Your task to perform on an android device: create a new album in the google photos Image 0: 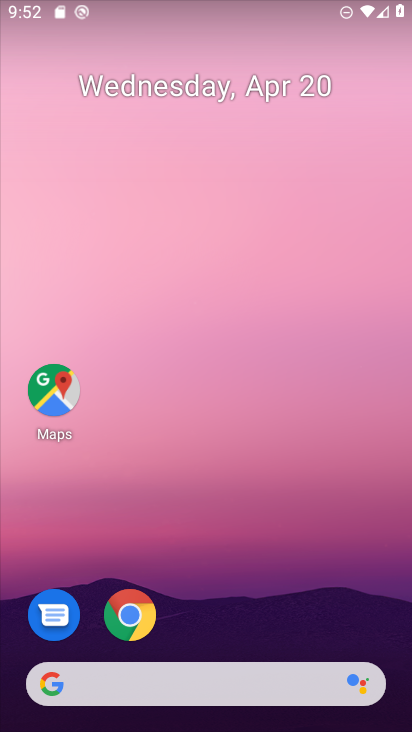
Step 0: drag from (251, 638) to (268, 82)
Your task to perform on an android device: create a new album in the google photos Image 1: 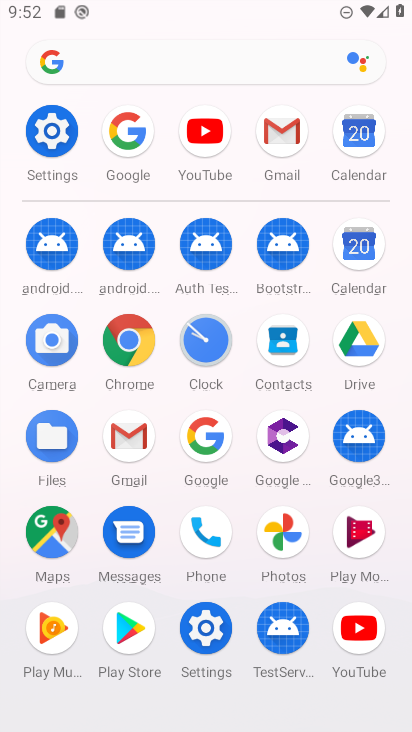
Step 1: drag from (171, 605) to (196, 310)
Your task to perform on an android device: create a new album in the google photos Image 2: 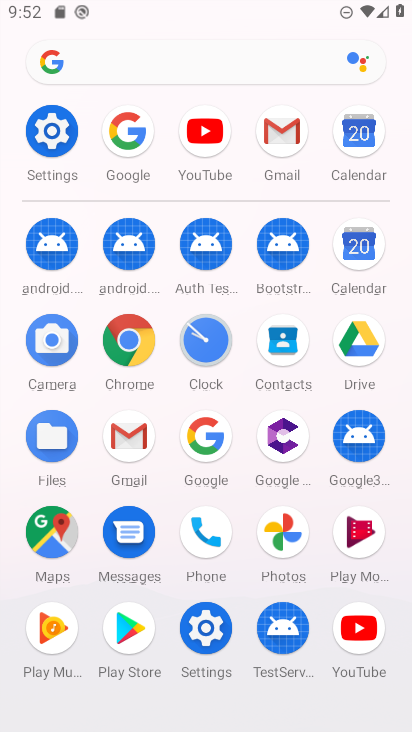
Step 2: click (279, 534)
Your task to perform on an android device: create a new album in the google photos Image 3: 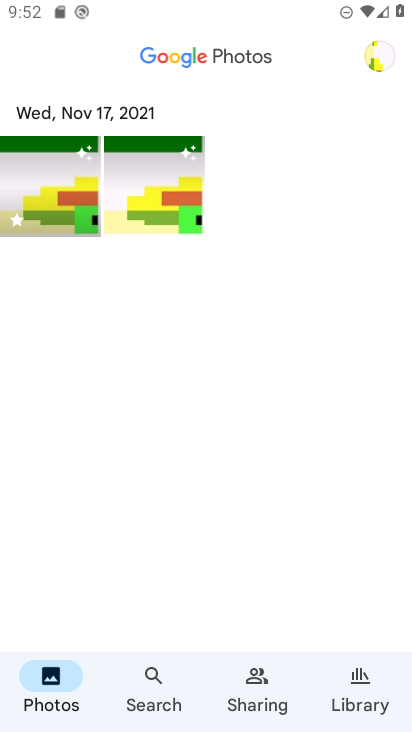
Step 3: click (353, 687)
Your task to perform on an android device: create a new album in the google photos Image 4: 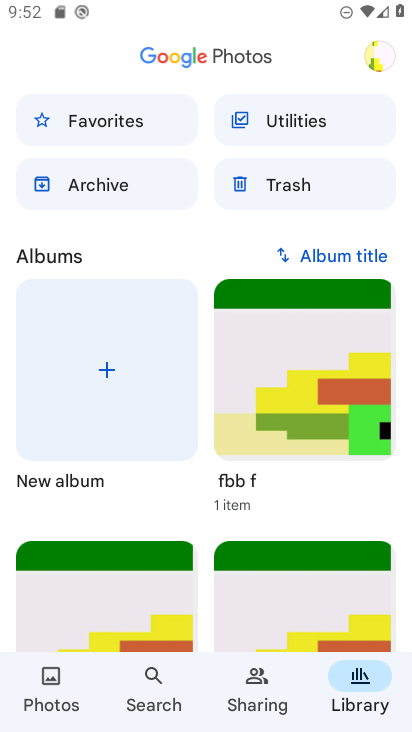
Step 4: click (104, 366)
Your task to perform on an android device: create a new album in the google photos Image 5: 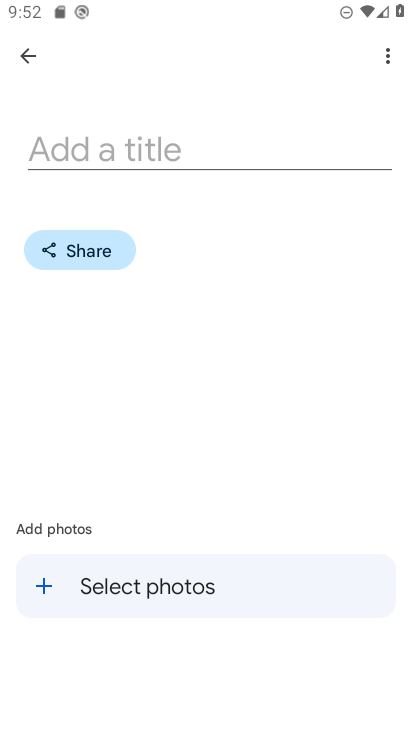
Step 5: click (185, 146)
Your task to perform on an android device: create a new album in the google photos Image 6: 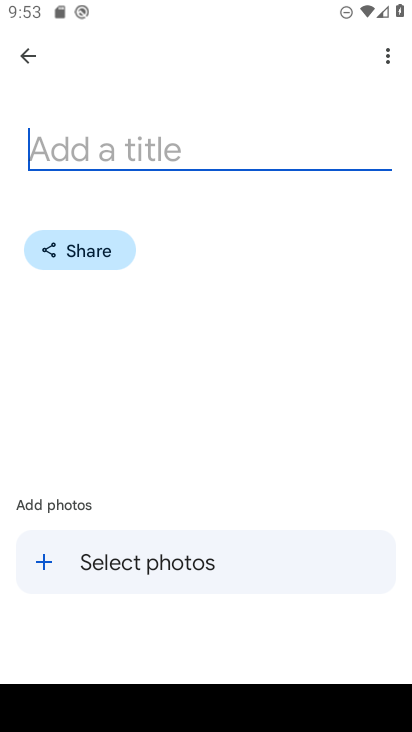
Step 6: type "Sunlife"
Your task to perform on an android device: create a new album in the google photos Image 7: 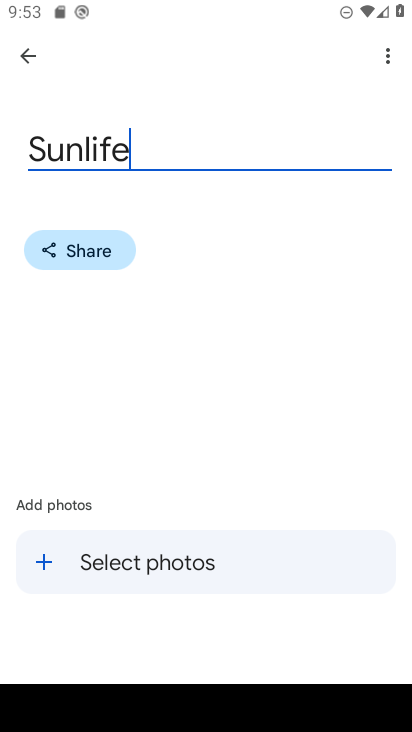
Step 7: type ""
Your task to perform on an android device: create a new album in the google photos Image 8: 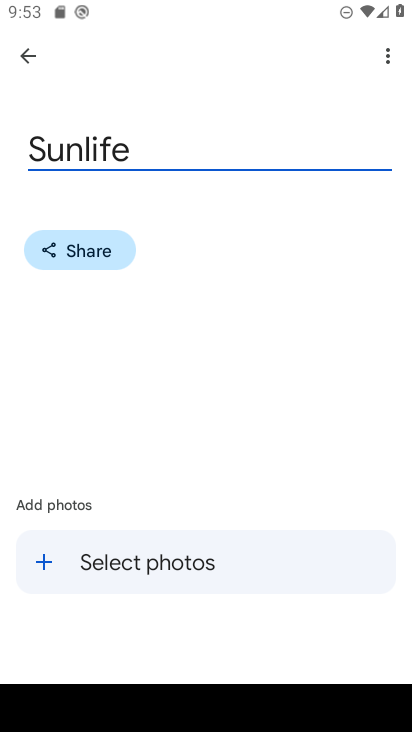
Step 8: click (142, 565)
Your task to perform on an android device: create a new album in the google photos Image 9: 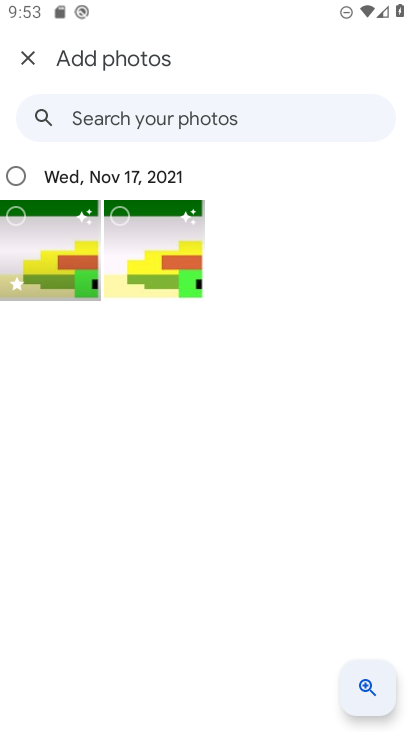
Step 9: click (20, 178)
Your task to perform on an android device: create a new album in the google photos Image 10: 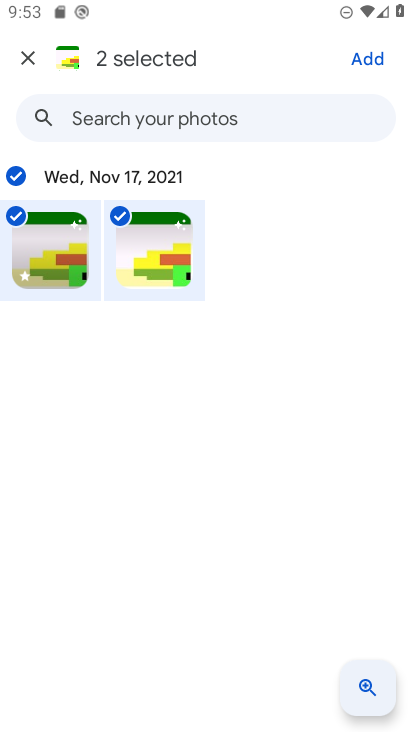
Step 10: click (382, 62)
Your task to perform on an android device: create a new album in the google photos Image 11: 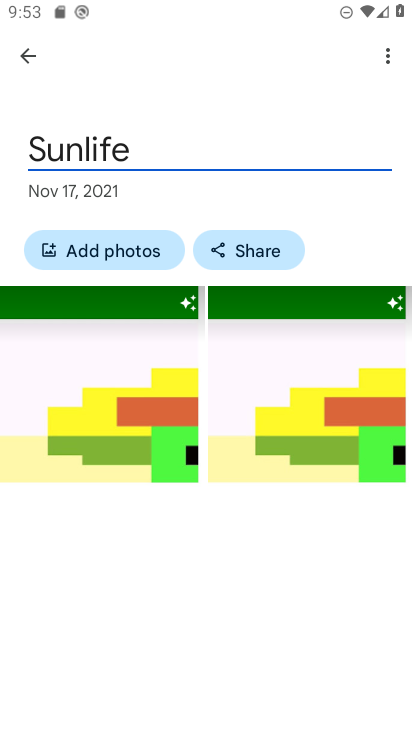
Step 11: task complete